Your task to perform on an android device: turn off picture-in-picture Image 0: 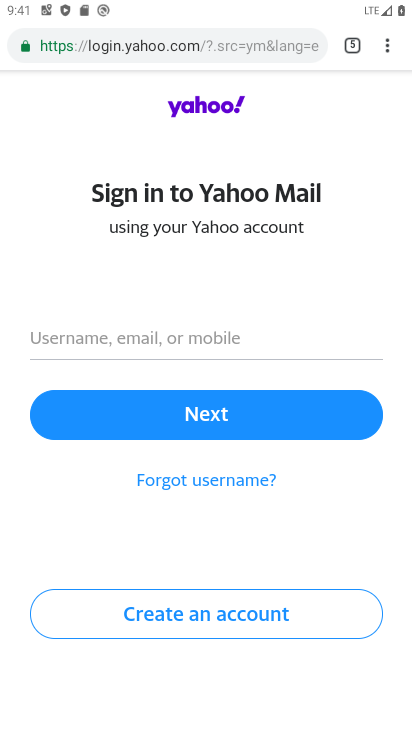
Step 0: press home button
Your task to perform on an android device: turn off picture-in-picture Image 1: 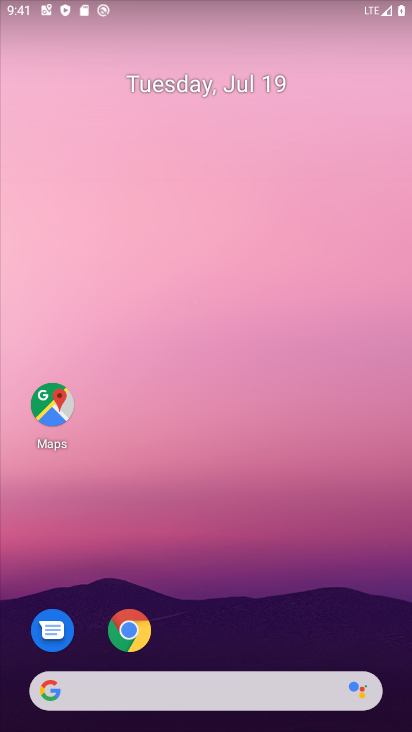
Step 1: click (137, 629)
Your task to perform on an android device: turn off picture-in-picture Image 2: 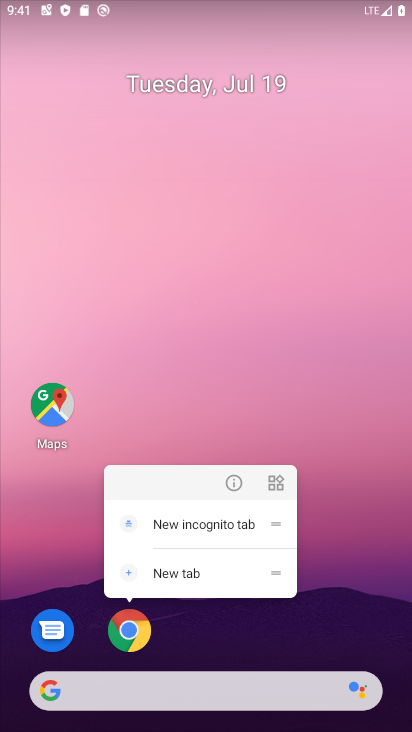
Step 2: click (237, 488)
Your task to perform on an android device: turn off picture-in-picture Image 3: 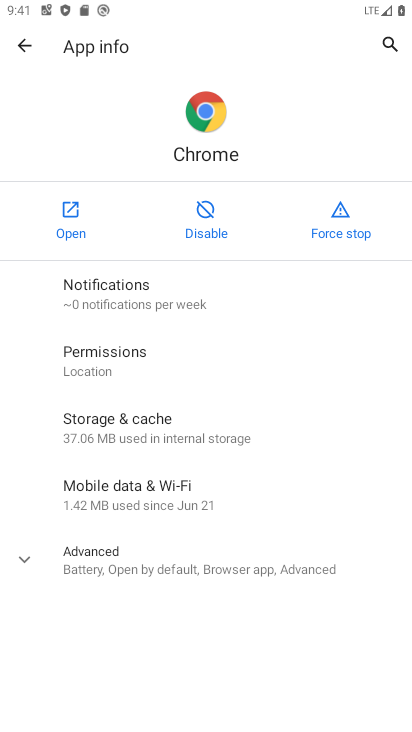
Step 3: click (84, 558)
Your task to perform on an android device: turn off picture-in-picture Image 4: 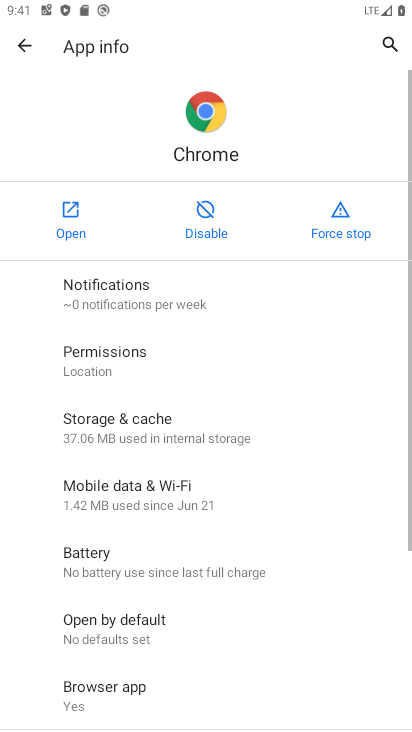
Step 4: drag from (161, 659) to (136, 267)
Your task to perform on an android device: turn off picture-in-picture Image 5: 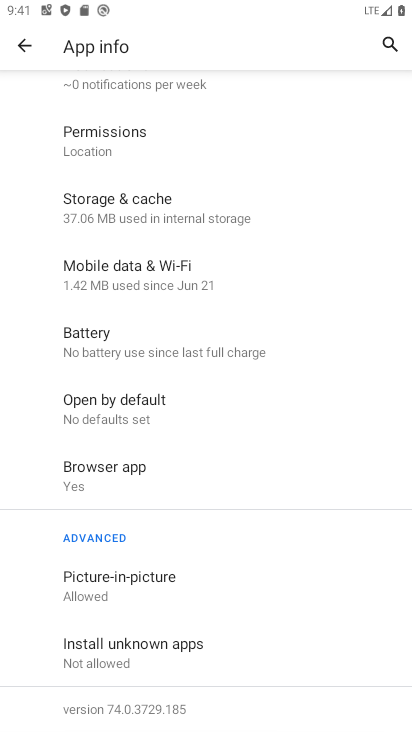
Step 5: click (151, 598)
Your task to perform on an android device: turn off picture-in-picture Image 6: 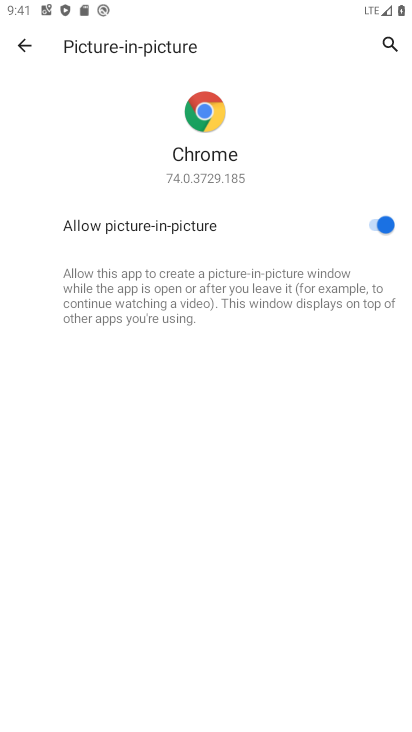
Step 6: click (396, 224)
Your task to perform on an android device: turn off picture-in-picture Image 7: 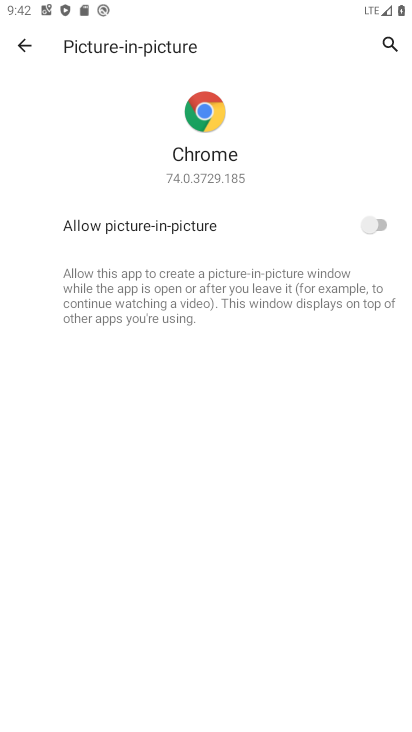
Step 7: task complete